Your task to perform on an android device: Open the stopwatch Image 0: 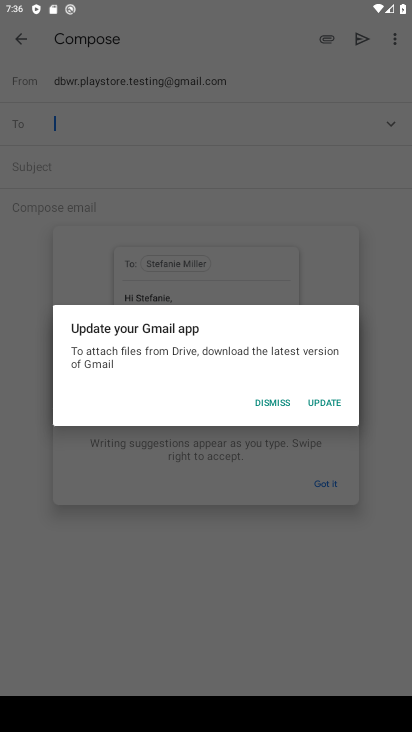
Step 0: press home button
Your task to perform on an android device: Open the stopwatch Image 1: 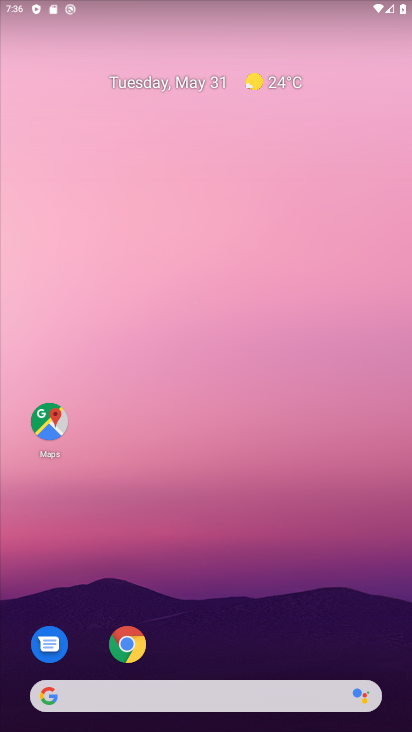
Step 1: drag from (173, 611) to (137, 64)
Your task to perform on an android device: Open the stopwatch Image 2: 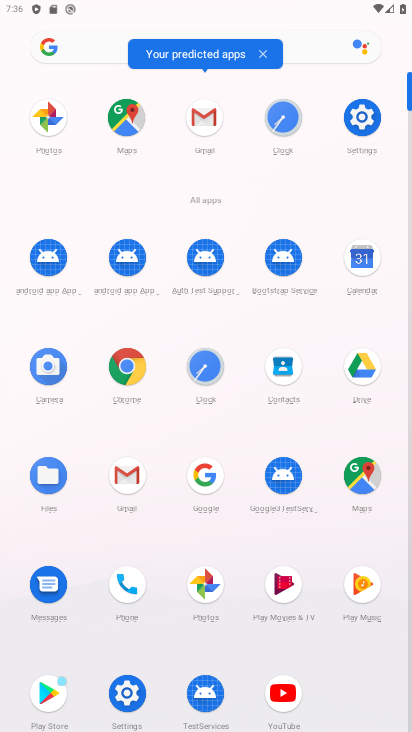
Step 2: click (202, 375)
Your task to perform on an android device: Open the stopwatch Image 3: 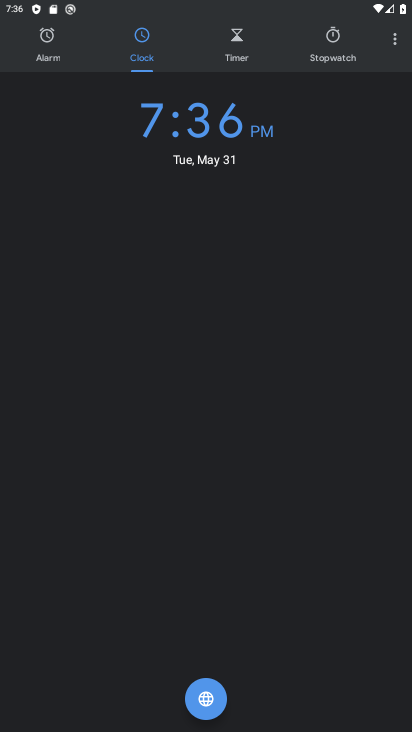
Step 3: click (338, 49)
Your task to perform on an android device: Open the stopwatch Image 4: 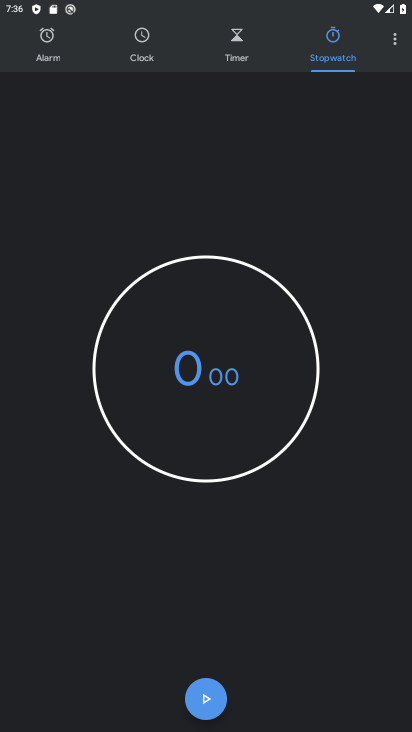
Step 4: task complete